Your task to perform on an android device: change the clock style Image 0: 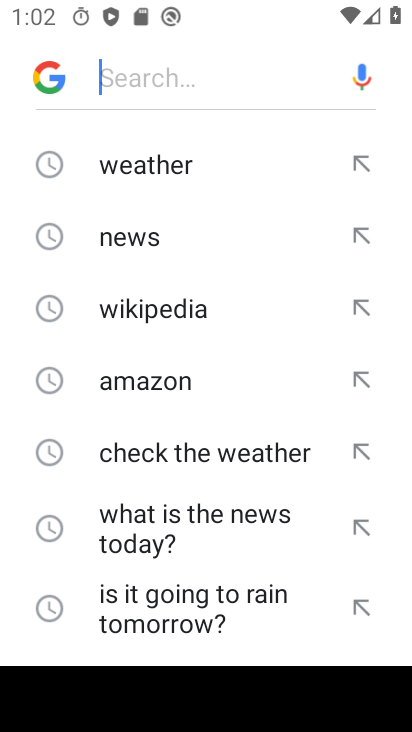
Step 0: press home button
Your task to perform on an android device: change the clock style Image 1: 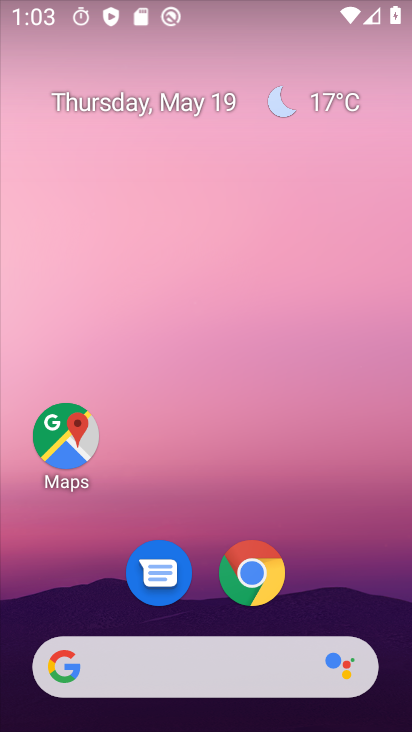
Step 1: drag from (216, 617) to (300, 53)
Your task to perform on an android device: change the clock style Image 2: 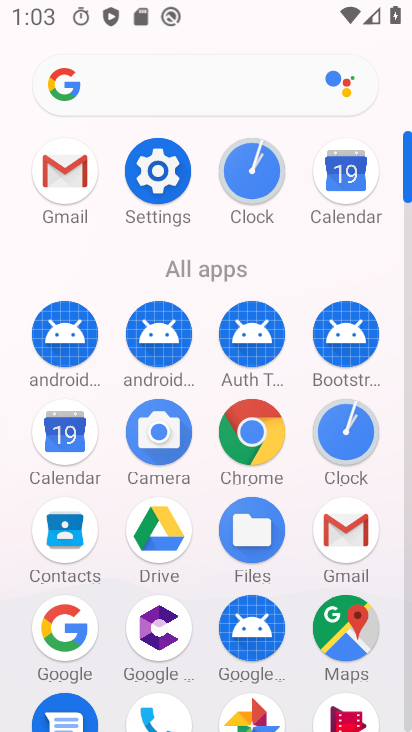
Step 2: click (247, 153)
Your task to perform on an android device: change the clock style Image 3: 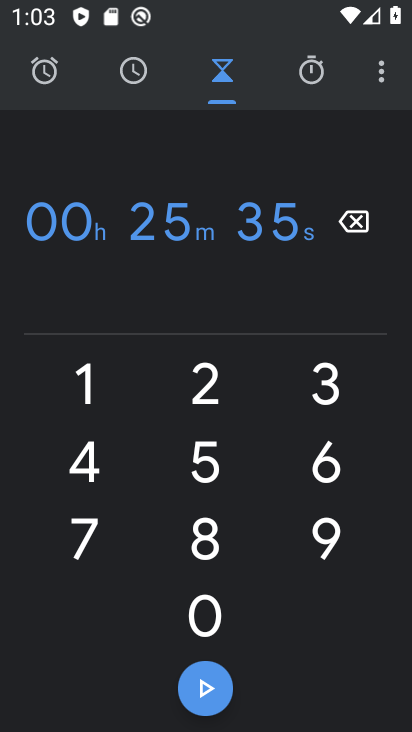
Step 3: click (374, 66)
Your task to perform on an android device: change the clock style Image 4: 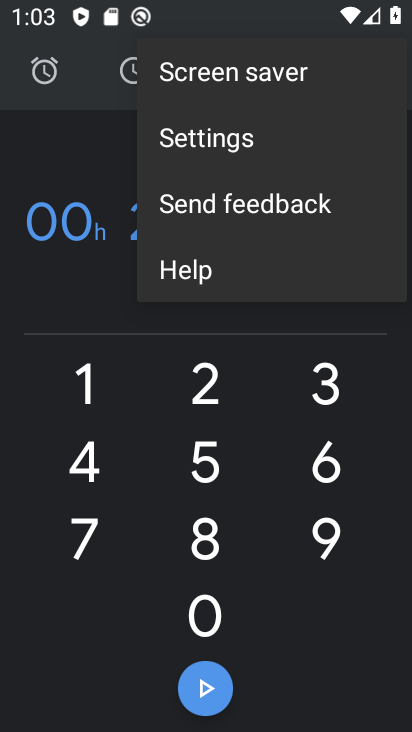
Step 4: click (208, 135)
Your task to perform on an android device: change the clock style Image 5: 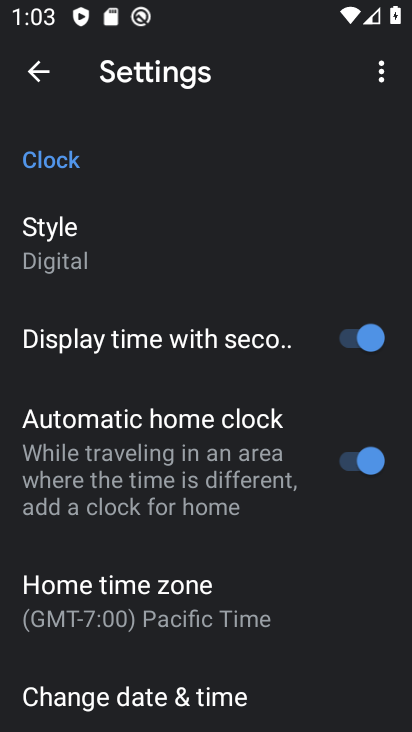
Step 5: click (94, 247)
Your task to perform on an android device: change the clock style Image 6: 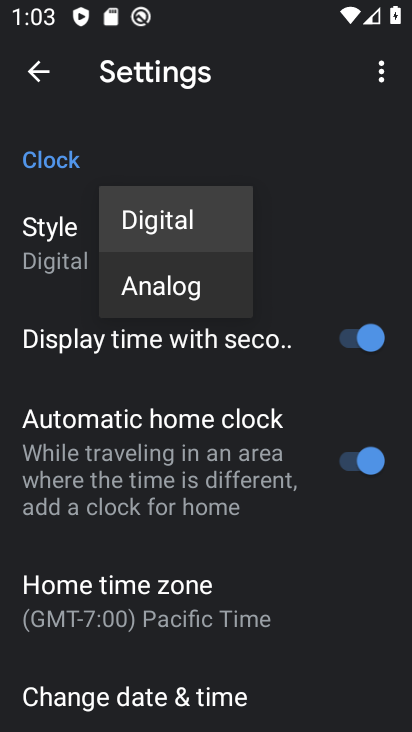
Step 6: click (156, 282)
Your task to perform on an android device: change the clock style Image 7: 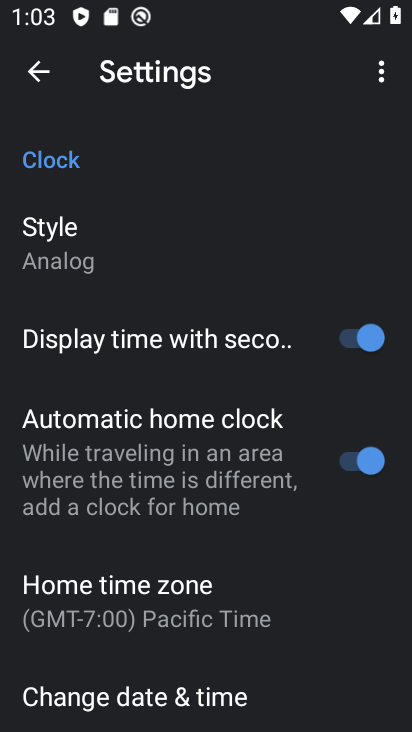
Step 7: task complete